Your task to perform on an android device: Search for pizza restaurants on Maps Image 0: 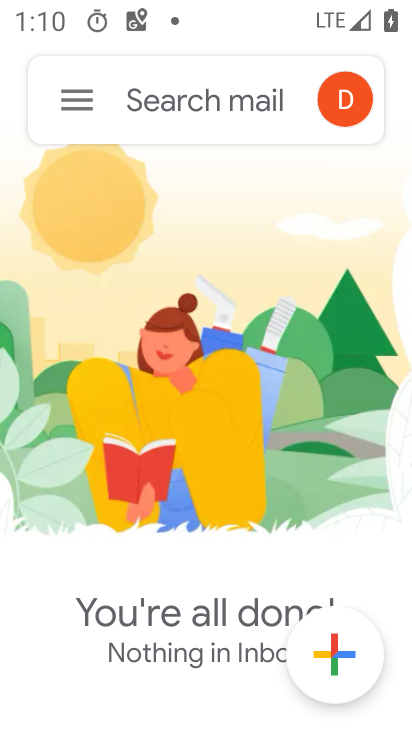
Step 0: press home button
Your task to perform on an android device: Search for pizza restaurants on Maps Image 1: 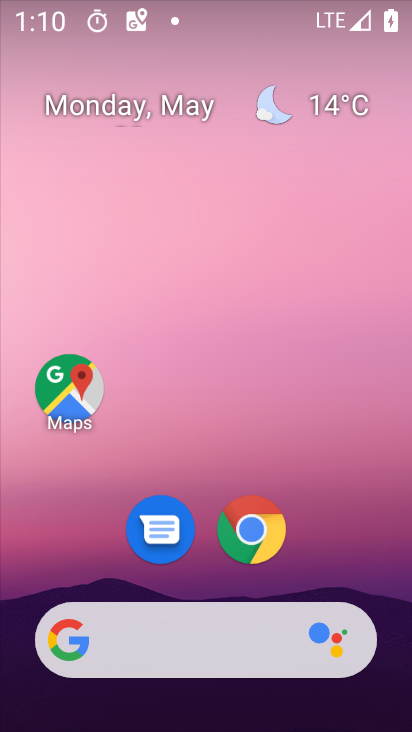
Step 1: drag from (370, 565) to (334, 178)
Your task to perform on an android device: Search for pizza restaurants on Maps Image 2: 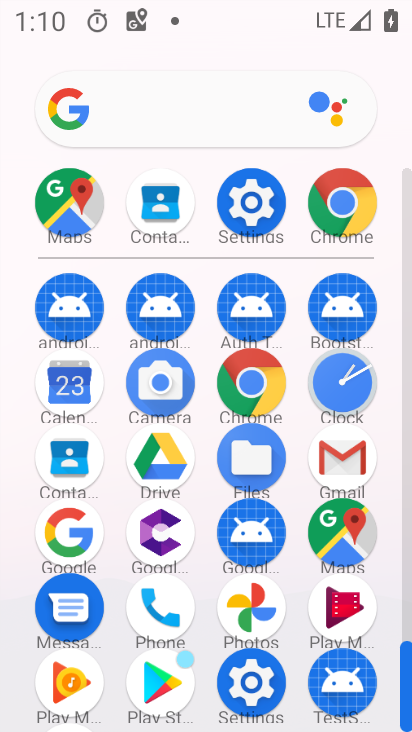
Step 2: click (363, 543)
Your task to perform on an android device: Search for pizza restaurants on Maps Image 3: 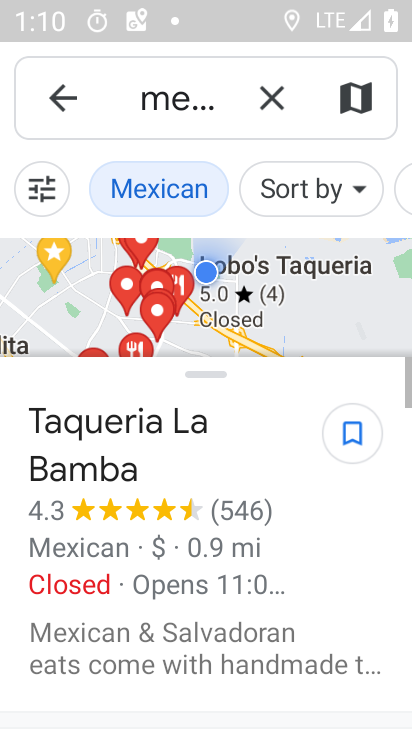
Step 3: click (273, 103)
Your task to perform on an android device: Search for pizza restaurants on Maps Image 4: 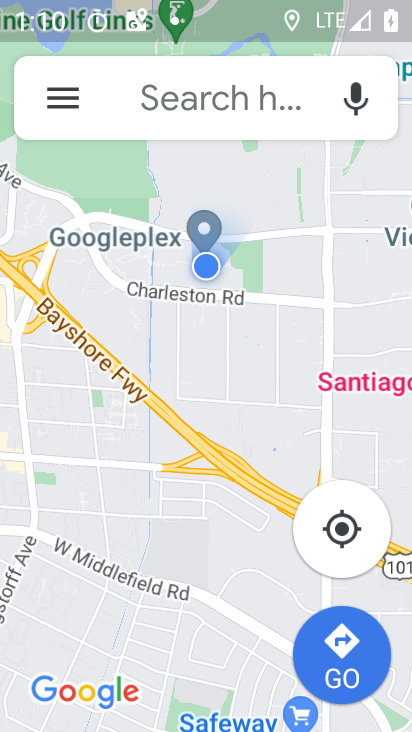
Step 4: type "pizzaa"
Your task to perform on an android device: Search for pizza restaurants on Maps Image 5: 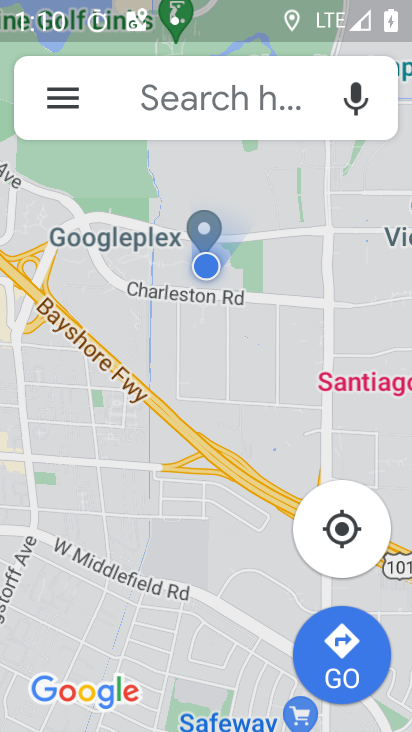
Step 5: click (191, 105)
Your task to perform on an android device: Search for pizza restaurants on Maps Image 6: 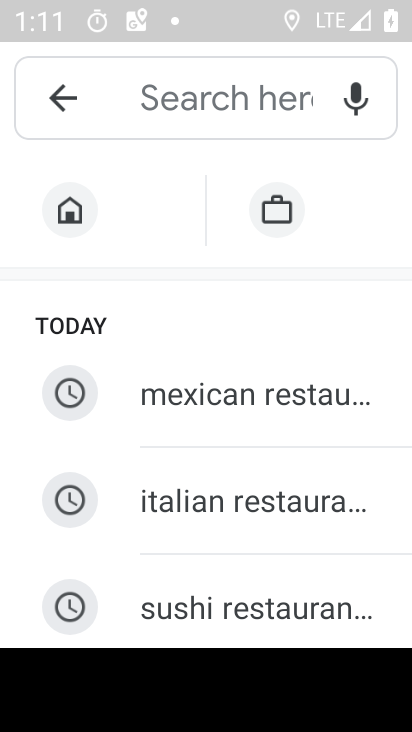
Step 6: type "pizzaa restaurants"
Your task to perform on an android device: Search for pizza restaurants on Maps Image 7: 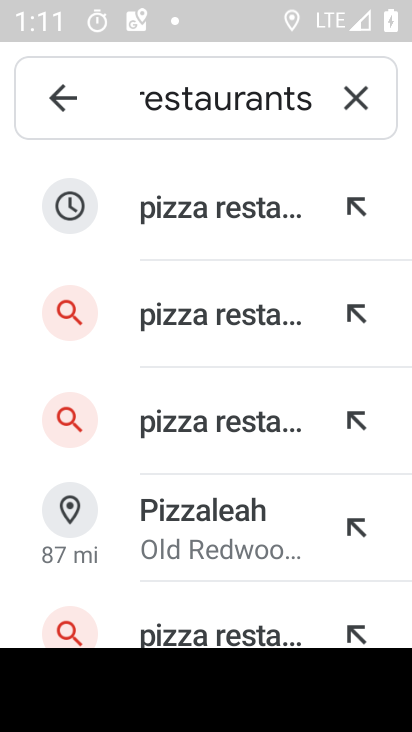
Step 7: click (174, 215)
Your task to perform on an android device: Search for pizza restaurants on Maps Image 8: 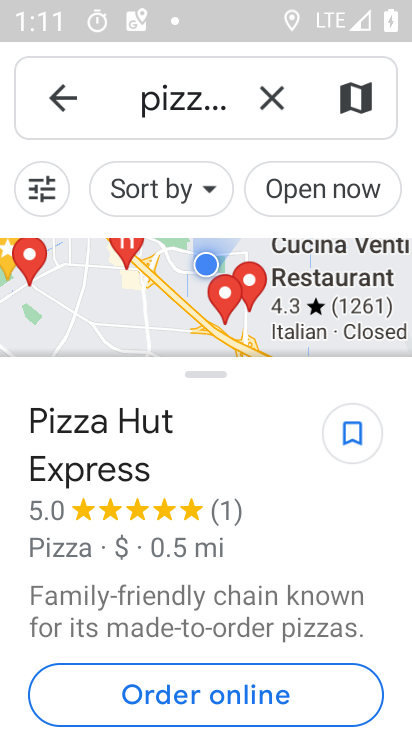
Step 8: task complete